Your task to perform on an android device: set an alarm Image 0: 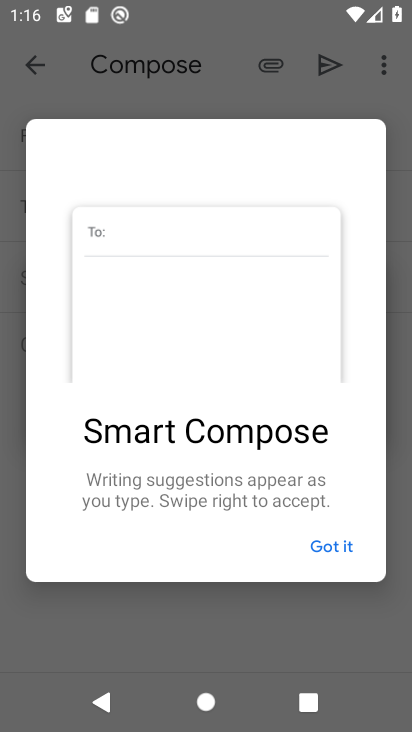
Step 0: press home button
Your task to perform on an android device: set an alarm Image 1: 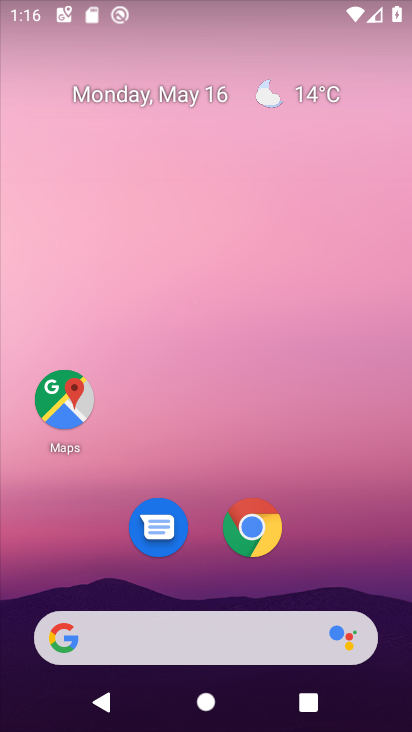
Step 1: drag from (202, 572) to (256, 174)
Your task to perform on an android device: set an alarm Image 2: 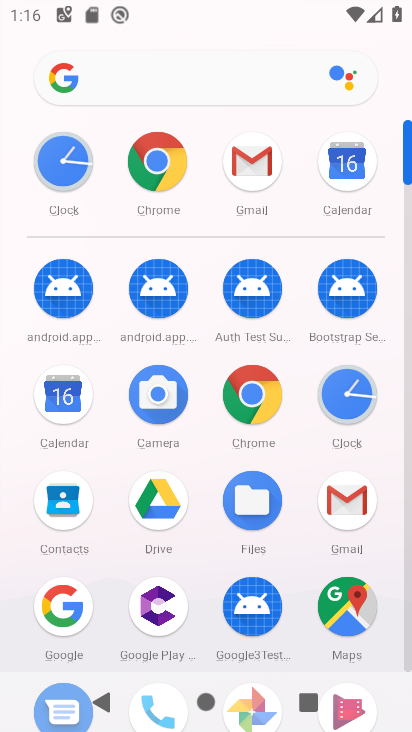
Step 2: click (64, 169)
Your task to perform on an android device: set an alarm Image 3: 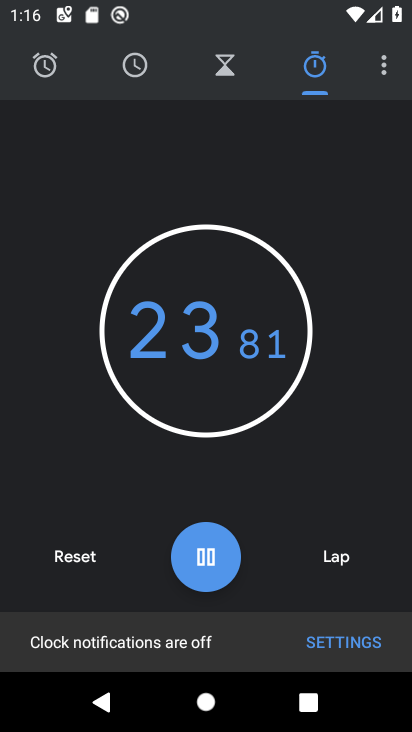
Step 3: click (46, 73)
Your task to perform on an android device: set an alarm Image 4: 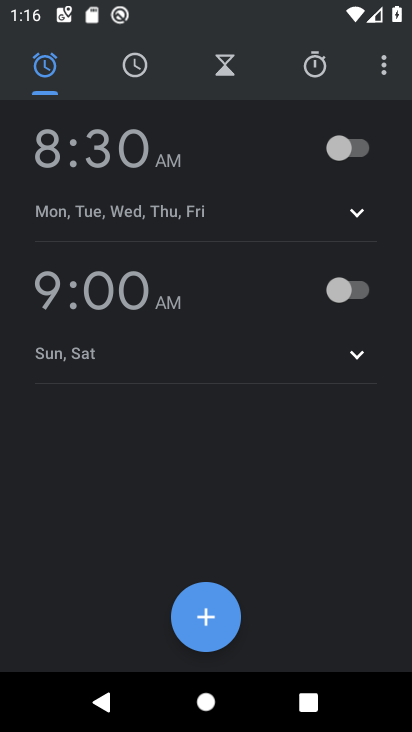
Step 4: click (113, 165)
Your task to perform on an android device: set an alarm Image 5: 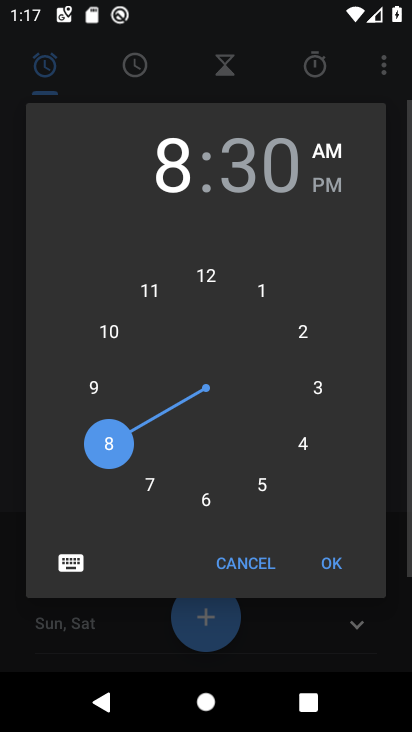
Step 5: click (117, 332)
Your task to perform on an android device: set an alarm Image 6: 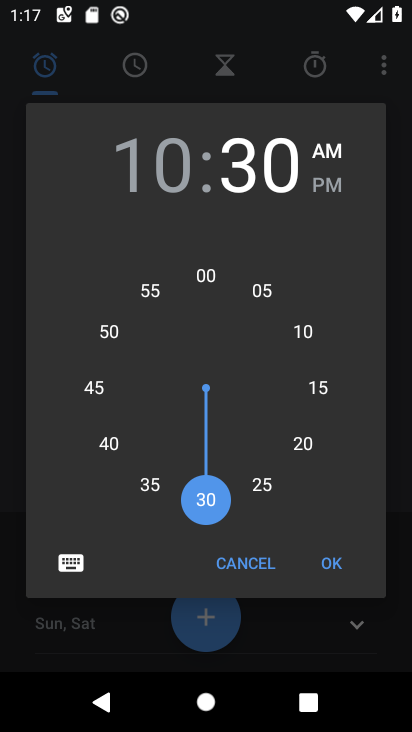
Step 6: click (304, 327)
Your task to perform on an android device: set an alarm Image 7: 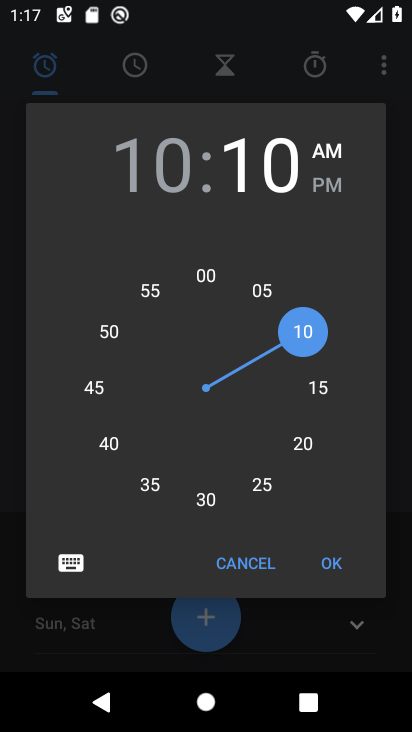
Step 7: click (342, 188)
Your task to perform on an android device: set an alarm Image 8: 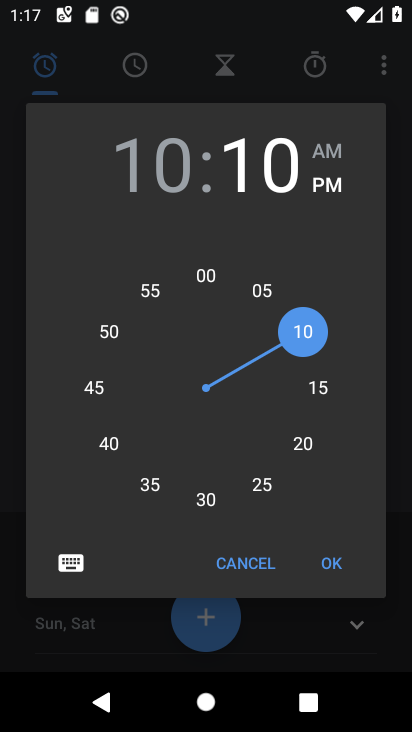
Step 8: click (336, 569)
Your task to perform on an android device: set an alarm Image 9: 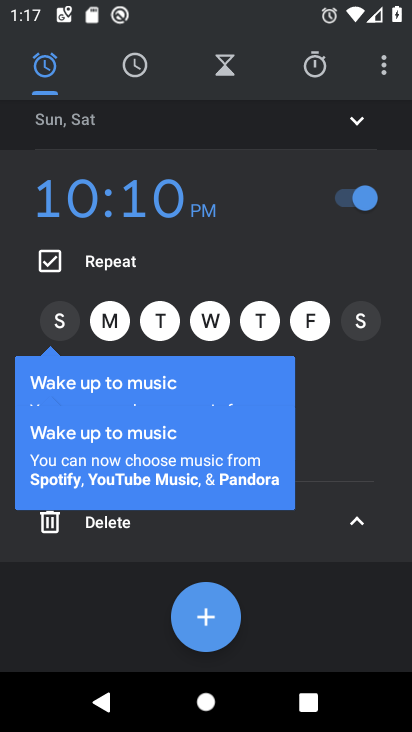
Step 9: task complete